Your task to perform on an android device: Show me popular games on the Play Store Image 0: 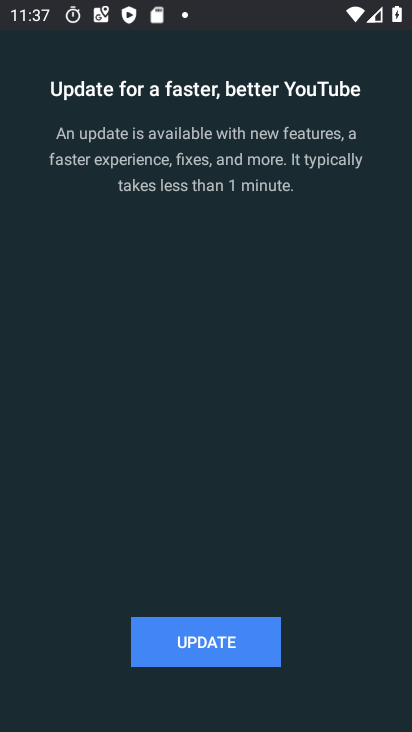
Step 0: press home button
Your task to perform on an android device: Show me popular games on the Play Store Image 1: 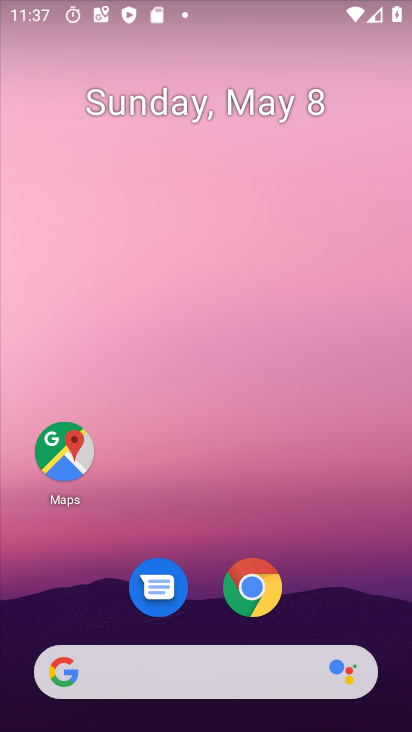
Step 1: drag from (258, 364) to (101, 56)
Your task to perform on an android device: Show me popular games on the Play Store Image 2: 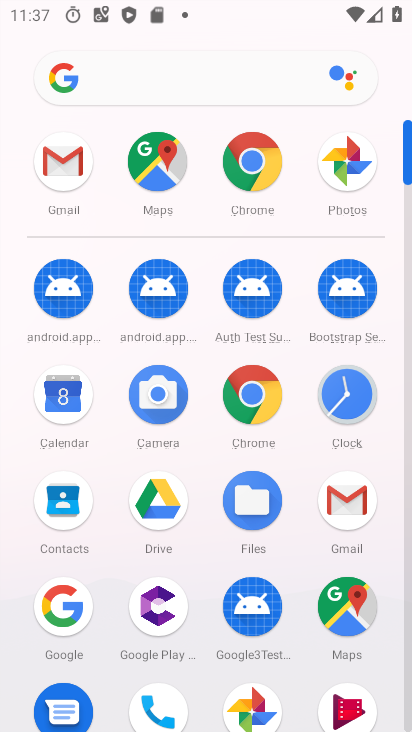
Step 2: drag from (221, 608) to (244, 106)
Your task to perform on an android device: Show me popular games on the Play Store Image 3: 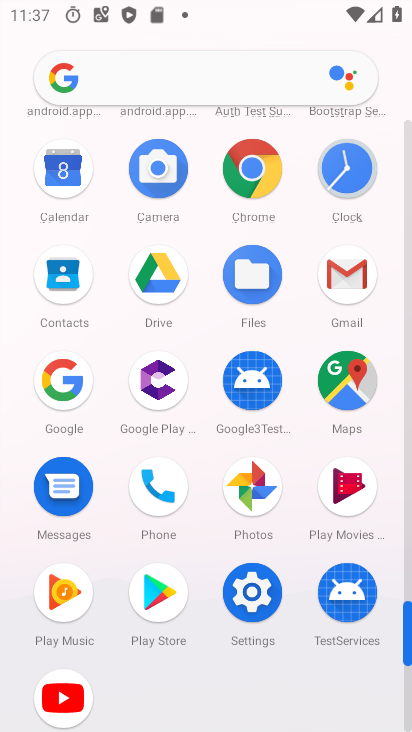
Step 3: click (154, 584)
Your task to perform on an android device: Show me popular games on the Play Store Image 4: 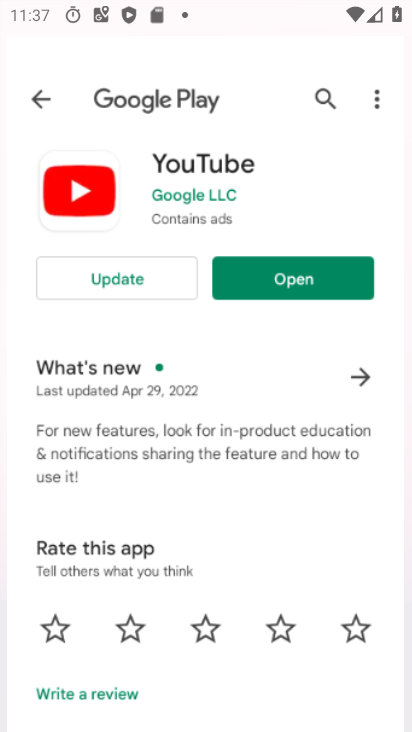
Step 4: click (154, 584)
Your task to perform on an android device: Show me popular games on the Play Store Image 5: 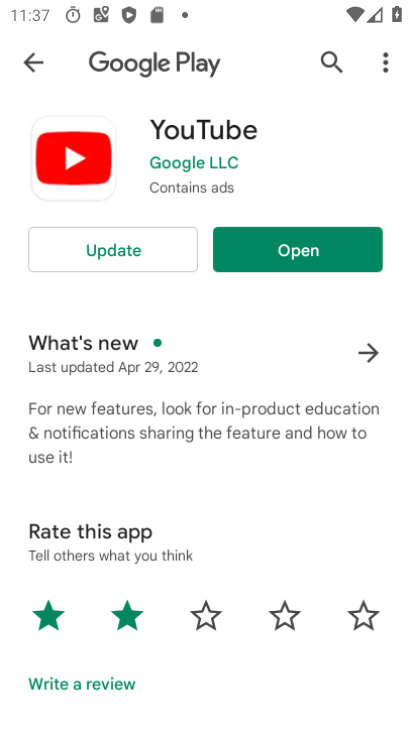
Step 5: click (280, 247)
Your task to perform on an android device: Show me popular games on the Play Store Image 6: 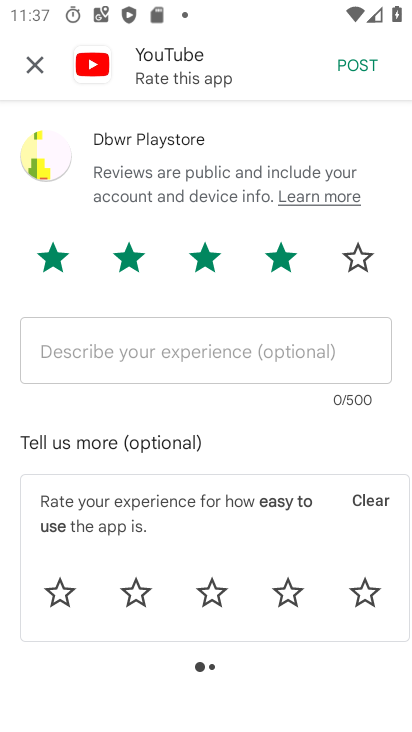
Step 6: click (35, 57)
Your task to perform on an android device: Show me popular games on the Play Store Image 7: 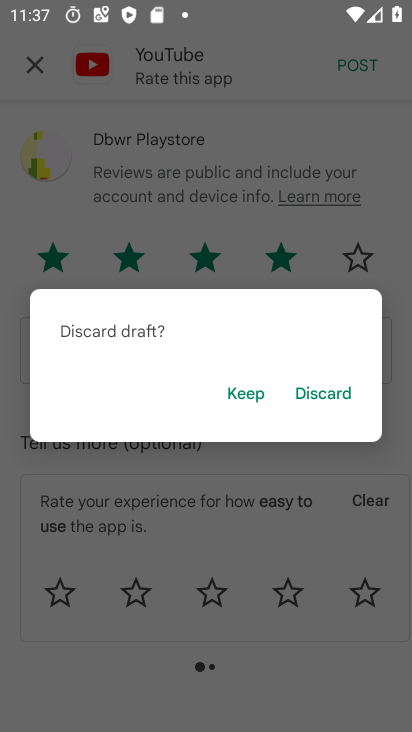
Step 7: click (327, 395)
Your task to perform on an android device: Show me popular games on the Play Store Image 8: 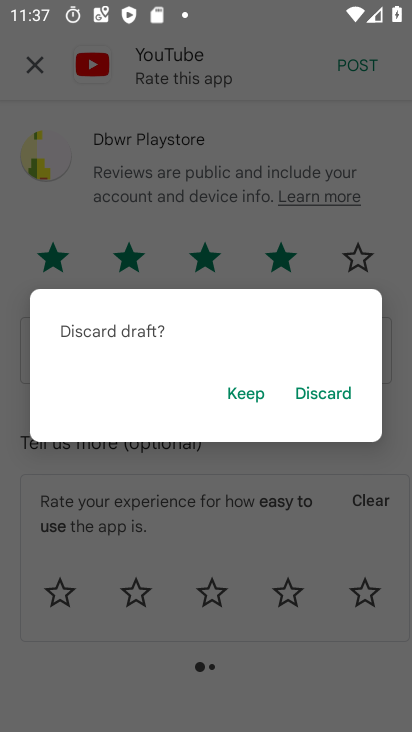
Step 8: click (327, 395)
Your task to perform on an android device: Show me popular games on the Play Store Image 9: 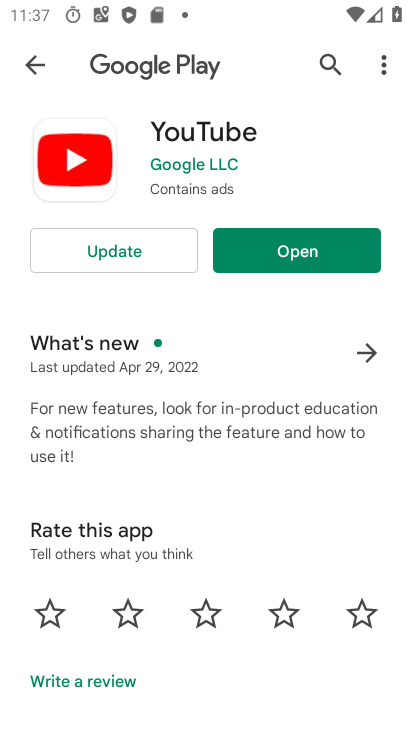
Step 9: click (41, 62)
Your task to perform on an android device: Show me popular games on the Play Store Image 10: 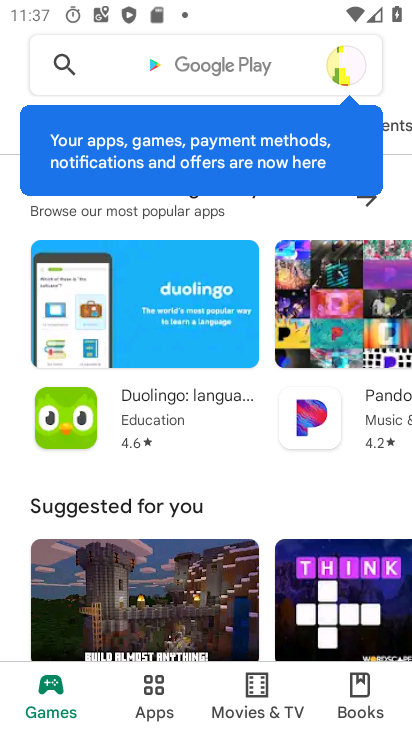
Step 10: click (150, 60)
Your task to perform on an android device: Show me popular games on the Play Store Image 11: 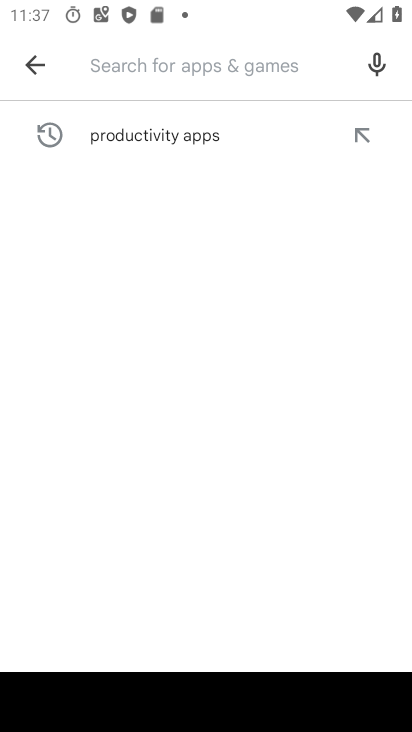
Step 11: type "games"
Your task to perform on an android device: Show me popular games on the Play Store Image 12: 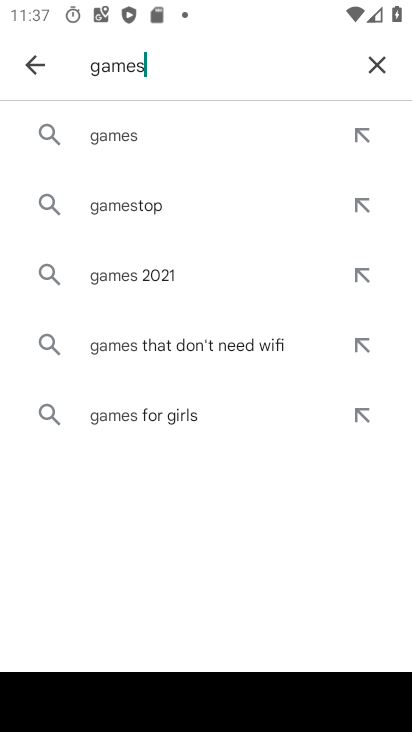
Step 12: click (356, 133)
Your task to perform on an android device: Show me popular games on the Play Store Image 13: 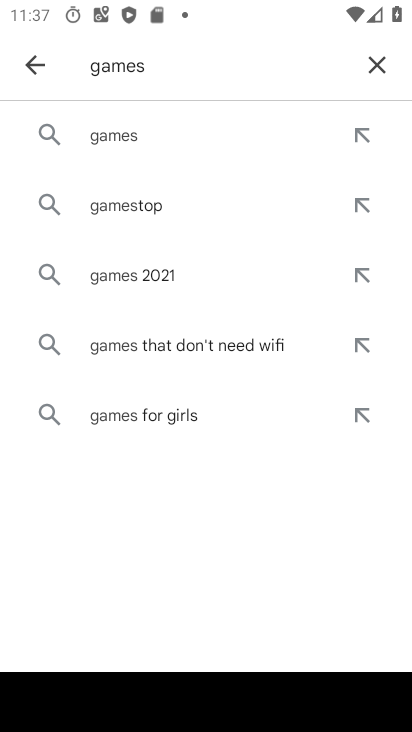
Step 13: click (118, 136)
Your task to perform on an android device: Show me popular games on the Play Store Image 14: 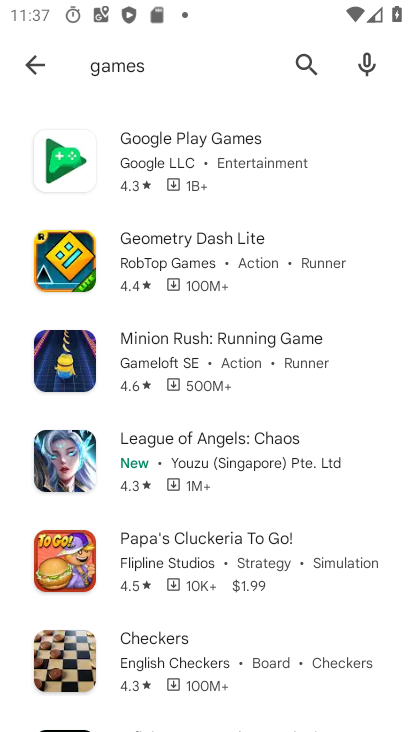
Step 14: drag from (184, 500) to (197, 81)
Your task to perform on an android device: Show me popular games on the Play Store Image 15: 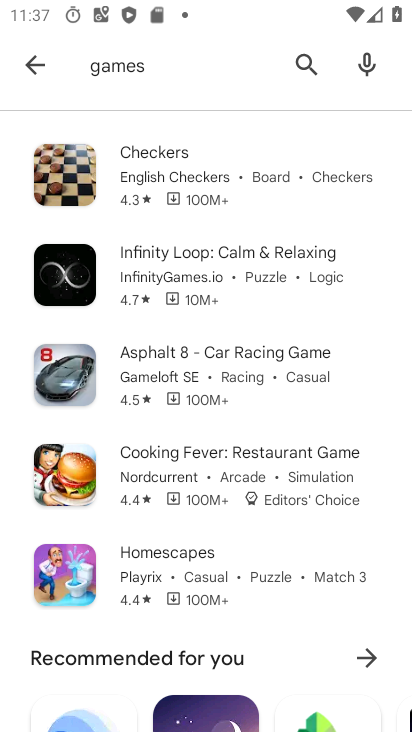
Step 15: click (245, 178)
Your task to perform on an android device: Show me popular games on the Play Store Image 16: 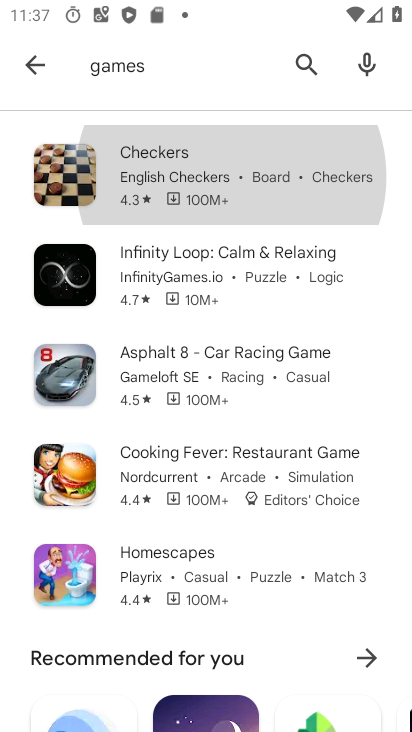
Step 16: drag from (156, 457) to (179, 333)
Your task to perform on an android device: Show me popular games on the Play Store Image 17: 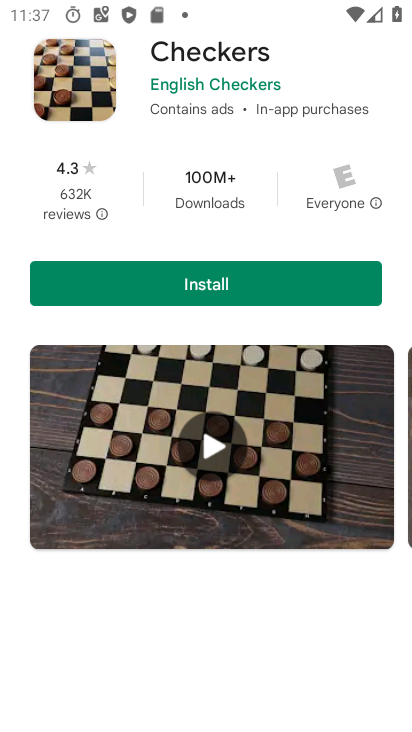
Step 17: drag from (157, 475) to (166, 260)
Your task to perform on an android device: Show me popular games on the Play Store Image 18: 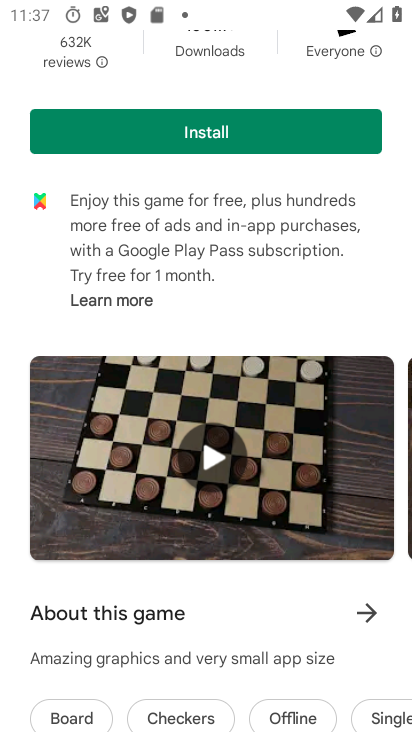
Step 18: drag from (163, 272) to (164, 481)
Your task to perform on an android device: Show me popular games on the Play Store Image 19: 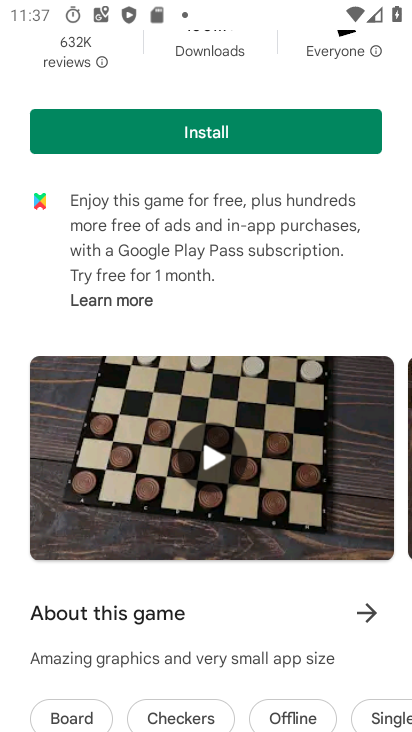
Step 19: drag from (171, 318) to (178, 420)
Your task to perform on an android device: Show me popular games on the Play Store Image 20: 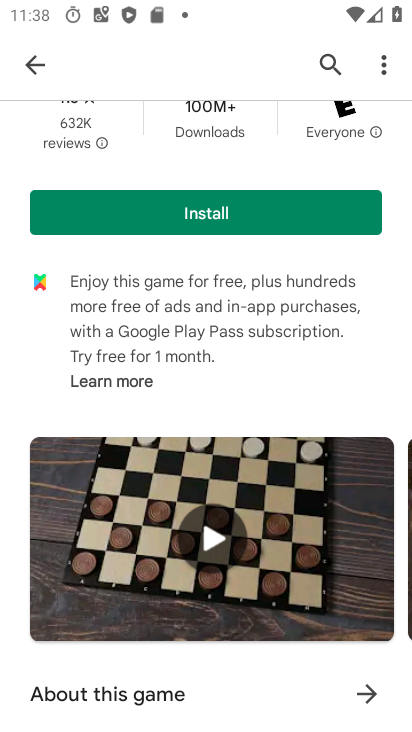
Step 20: drag from (218, 326) to (270, 554)
Your task to perform on an android device: Show me popular games on the Play Store Image 21: 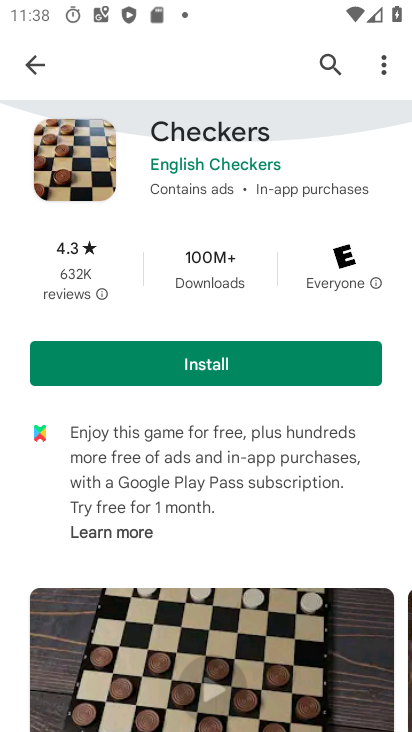
Step 21: click (265, 601)
Your task to perform on an android device: Show me popular games on the Play Store Image 22: 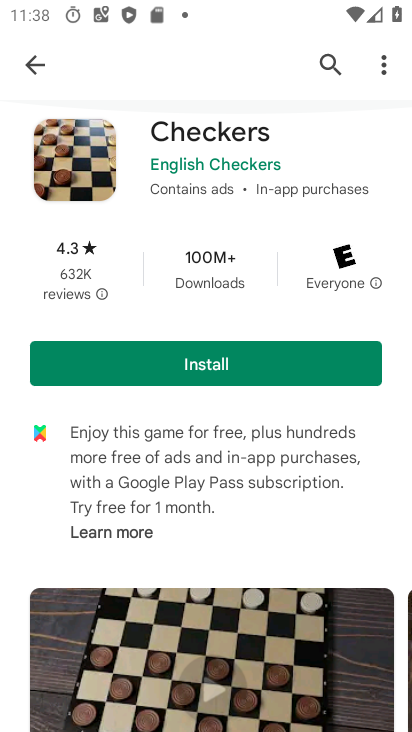
Step 22: drag from (238, 439) to (238, 524)
Your task to perform on an android device: Show me popular games on the Play Store Image 23: 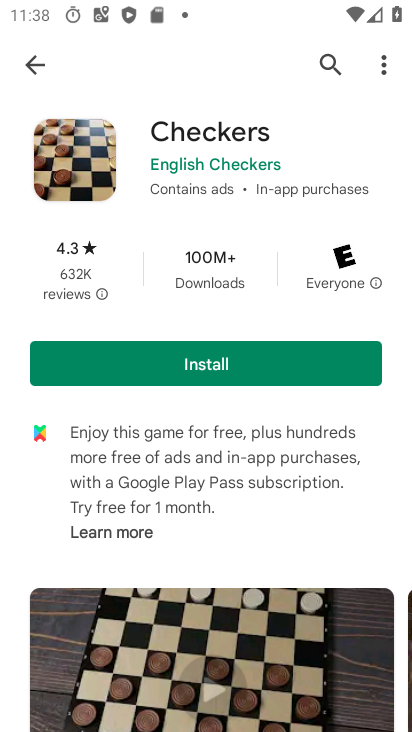
Step 23: drag from (235, 364) to (251, 551)
Your task to perform on an android device: Show me popular games on the Play Store Image 24: 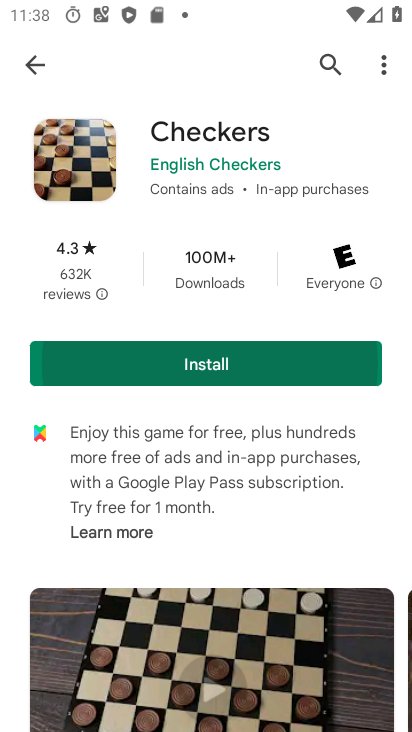
Step 24: drag from (249, 356) to (255, 451)
Your task to perform on an android device: Show me popular games on the Play Store Image 25: 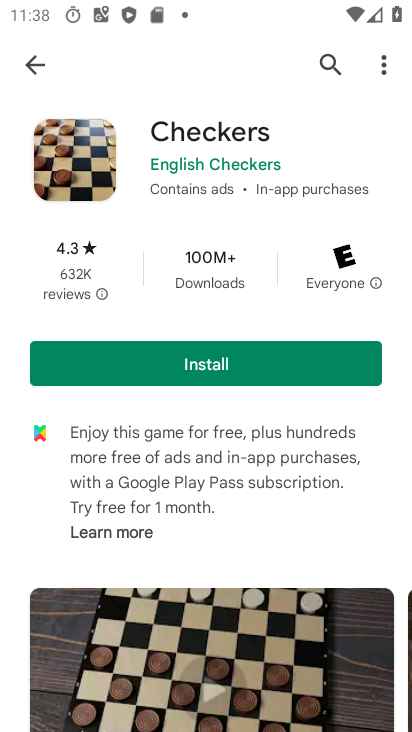
Step 25: click (36, 61)
Your task to perform on an android device: Show me popular games on the Play Store Image 26: 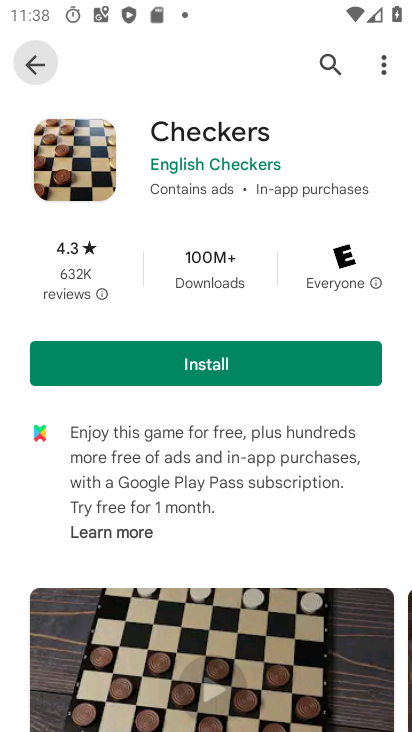
Step 26: click (36, 61)
Your task to perform on an android device: Show me popular games on the Play Store Image 27: 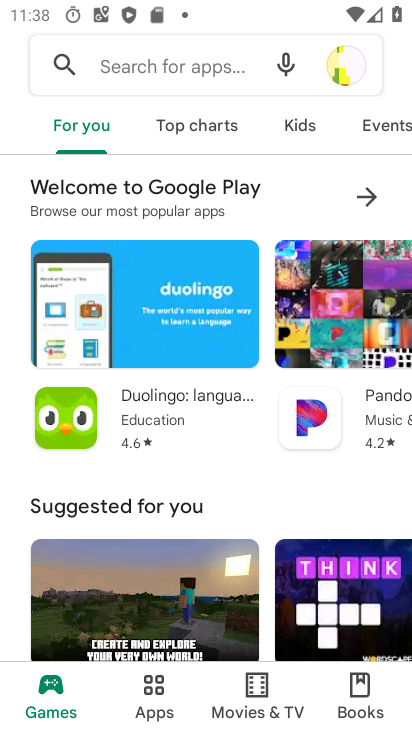
Step 27: task complete